Your task to perform on an android device: What's the weather going to be tomorrow? Image 0: 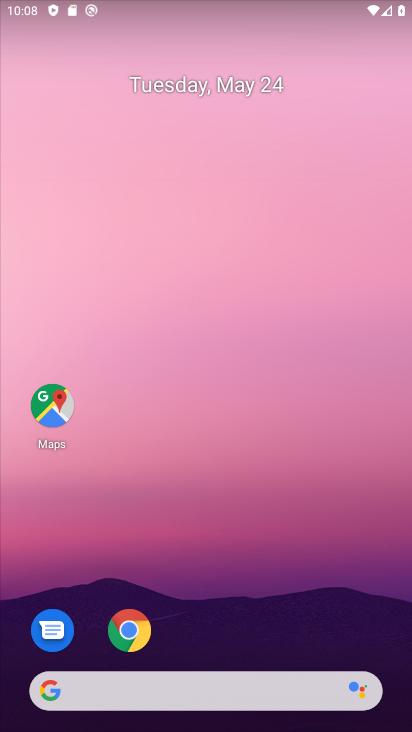
Step 0: drag from (9, 271) to (402, 304)
Your task to perform on an android device: What's the weather going to be tomorrow? Image 1: 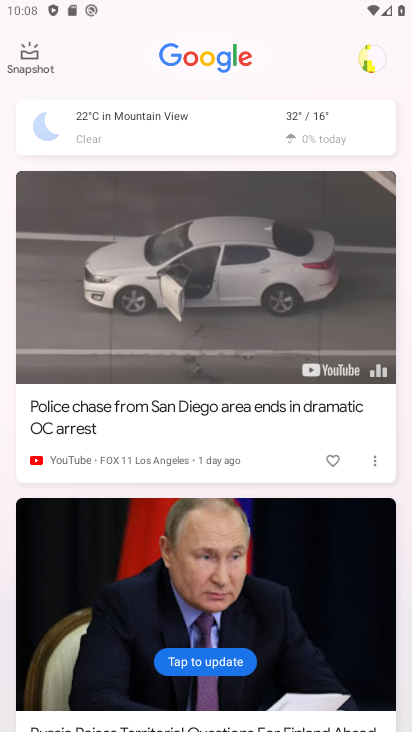
Step 1: click (303, 122)
Your task to perform on an android device: What's the weather going to be tomorrow? Image 2: 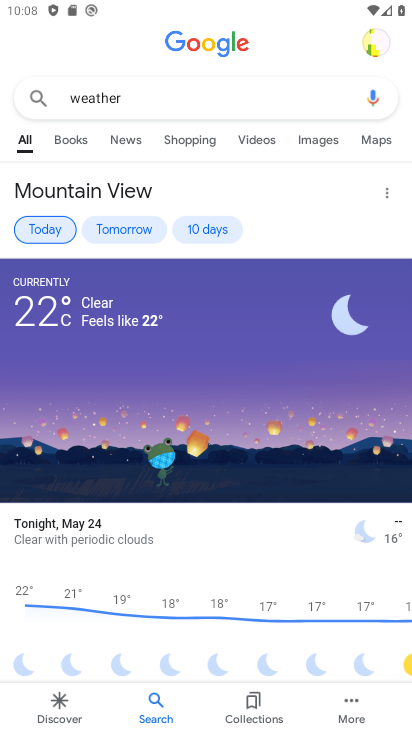
Step 2: click (128, 224)
Your task to perform on an android device: What's the weather going to be tomorrow? Image 3: 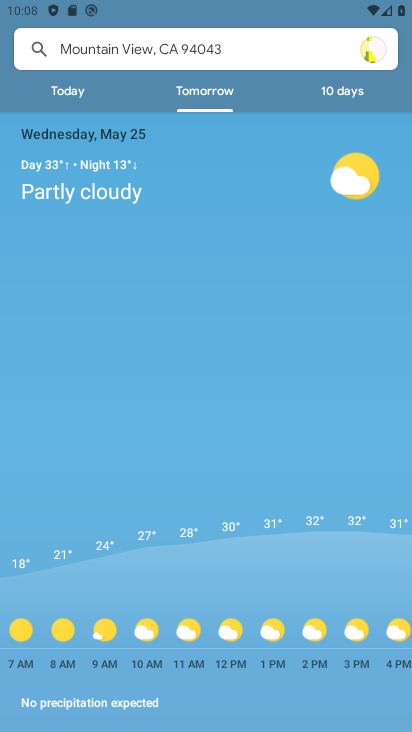
Step 3: drag from (225, 560) to (258, 213)
Your task to perform on an android device: What's the weather going to be tomorrow? Image 4: 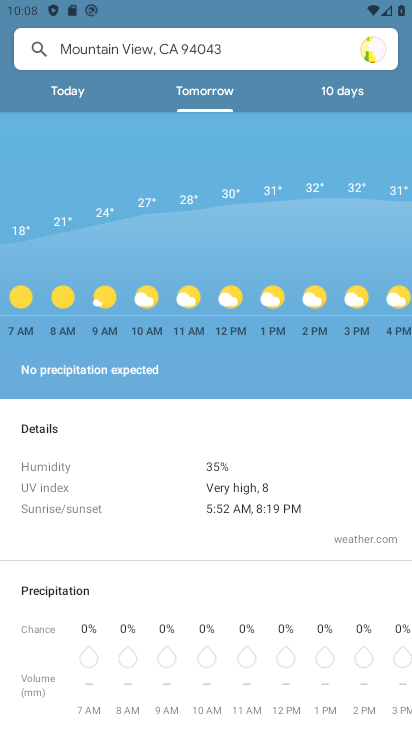
Step 4: drag from (319, 299) to (61, 301)
Your task to perform on an android device: What's the weather going to be tomorrow? Image 5: 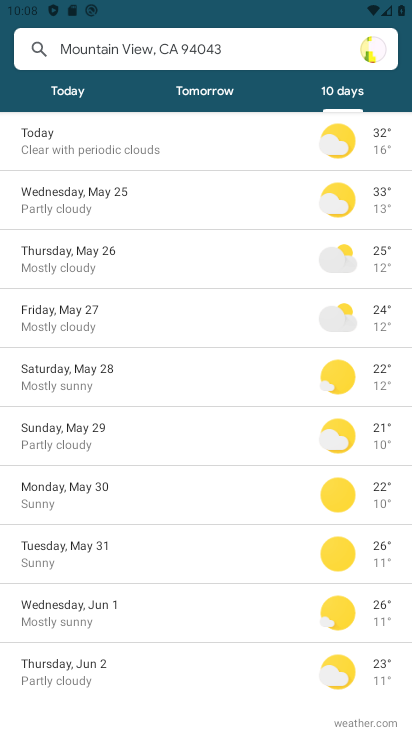
Step 5: click (202, 89)
Your task to perform on an android device: What's the weather going to be tomorrow? Image 6: 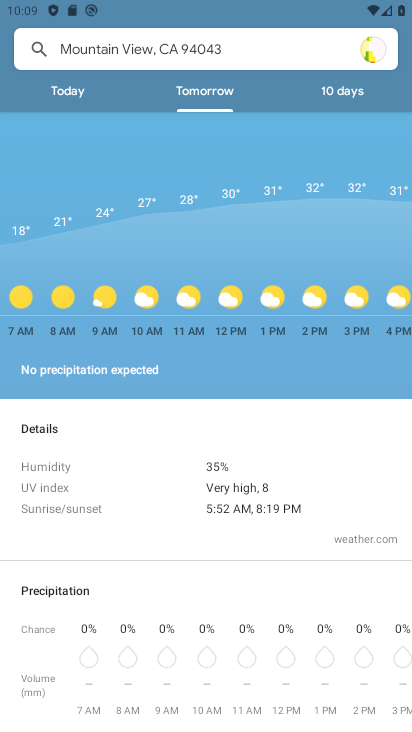
Step 6: task complete